Your task to perform on an android device: move an email to a new category in the gmail app Image 0: 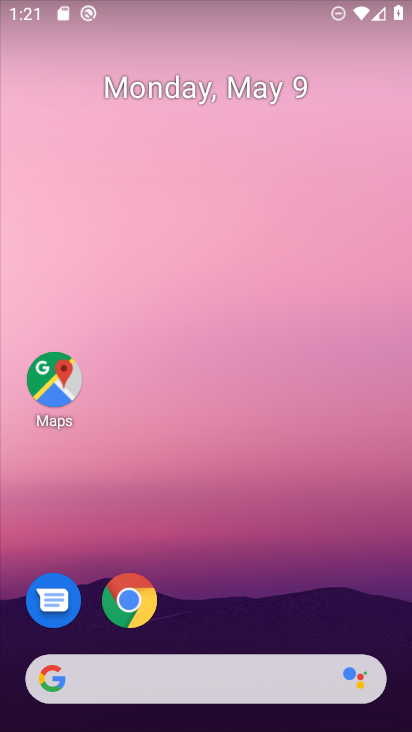
Step 0: drag from (158, 690) to (257, 129)
Your task to perform on an android device: move an email to a new category in the gmail app Image 1: 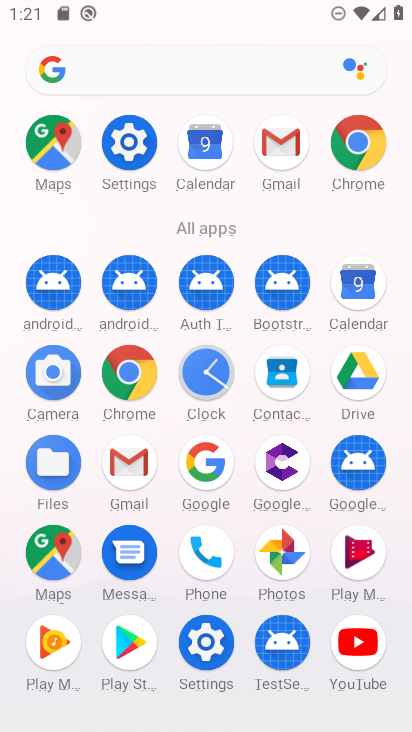
Step 1: click (286, 144)
Your task to perform on an android device: move an email to a new category in the gmail app Image 2: 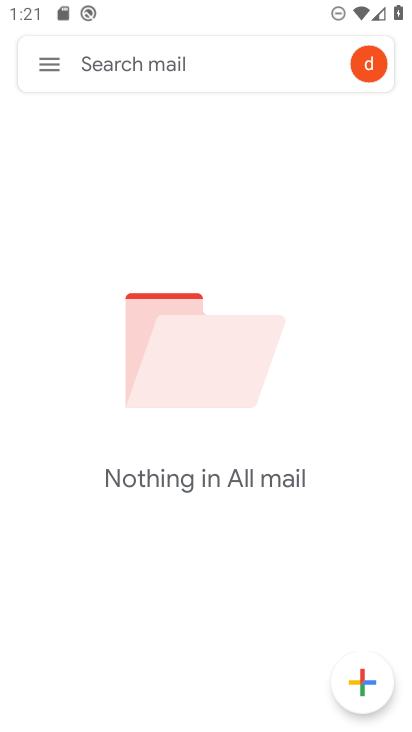
Step 2: task complete